Your task to perform on an android device: Go to eBay Image 0: 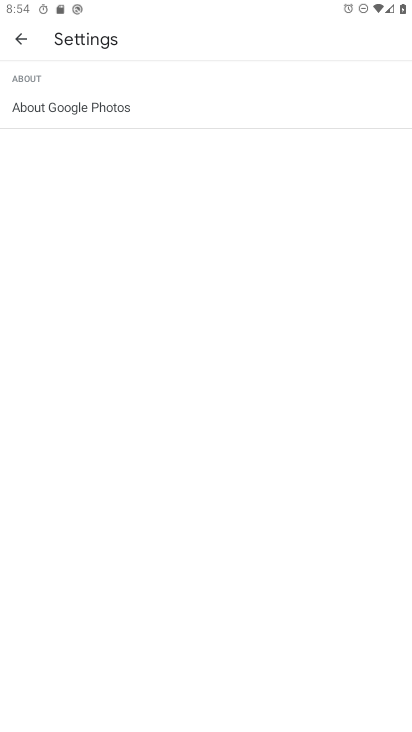
Step 0: press home button
Your task to perform on an android device: Go to eBay Image 1: 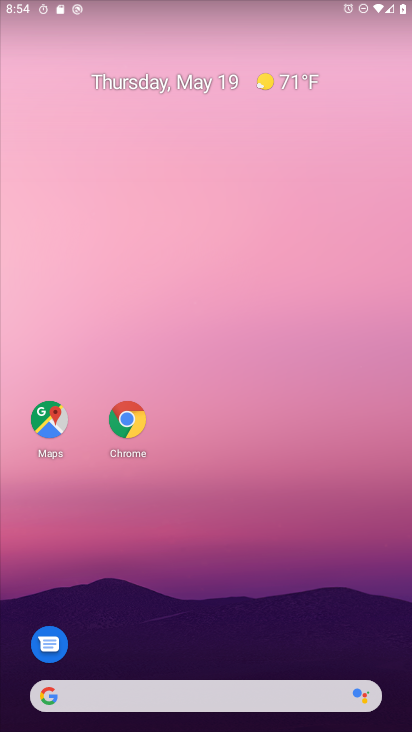
Step 1: click (130, 415)
Your task to perform on an android device: Go to eBay Image 2: 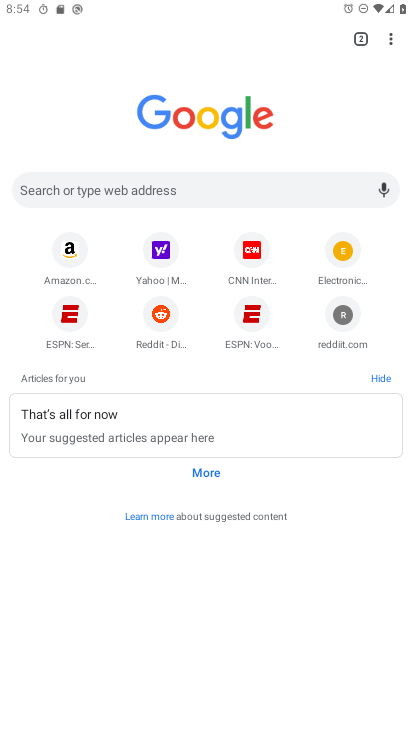
Step 2: click (341, 254)
Your task to perform on an android device: Go to eBay Image 3: 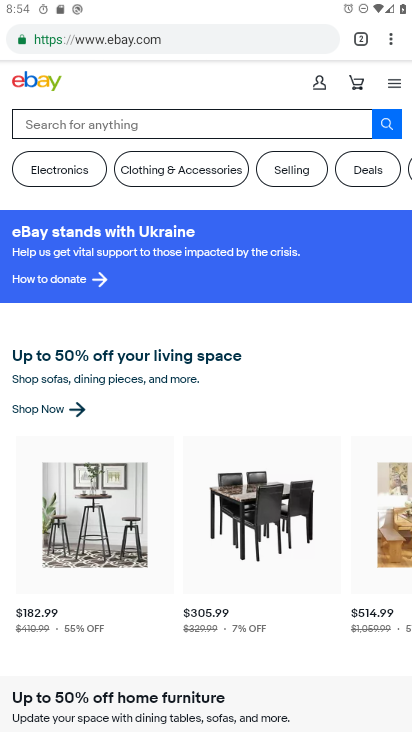
Step 3: task complete